Your task to perform on an android device: See recent photos Image 0: 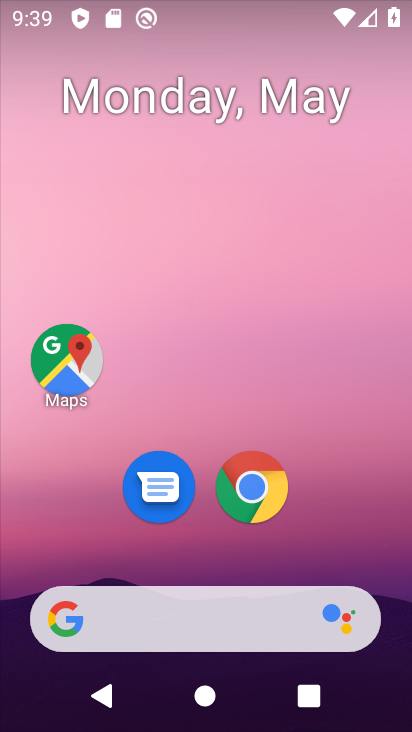
Step 0: drag from (308, 541) to (308, 0)
Your task to perform on an android device: See recent photos Image 1: 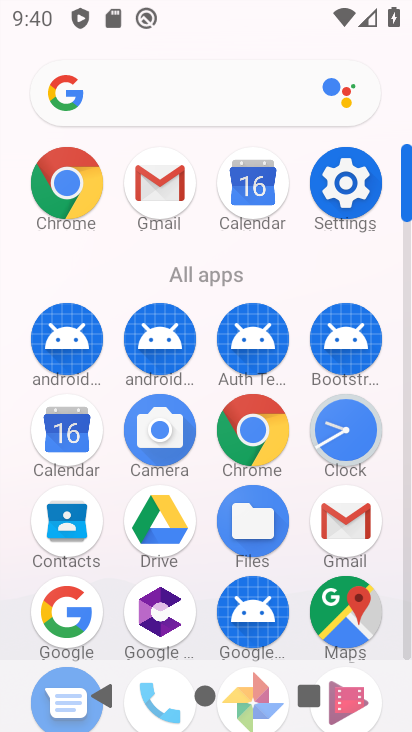
Step 1: drag from (294, 617) to (289, 295)
Your task to perform on an android device: See recent photos Image 2: 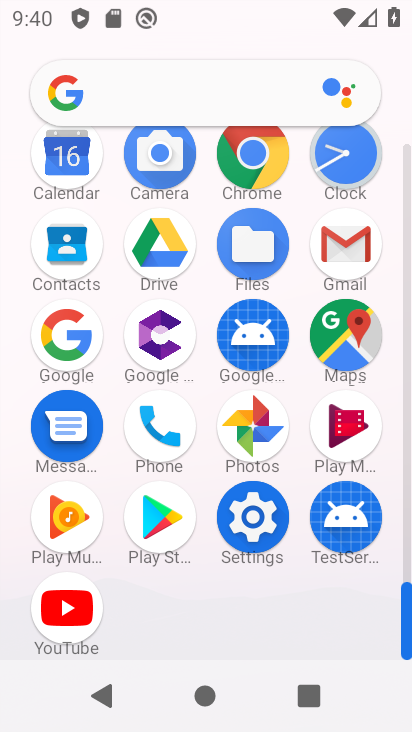
Step 2: click (235, 429)
Your task to perform on an android device: See recent photos Image 3: 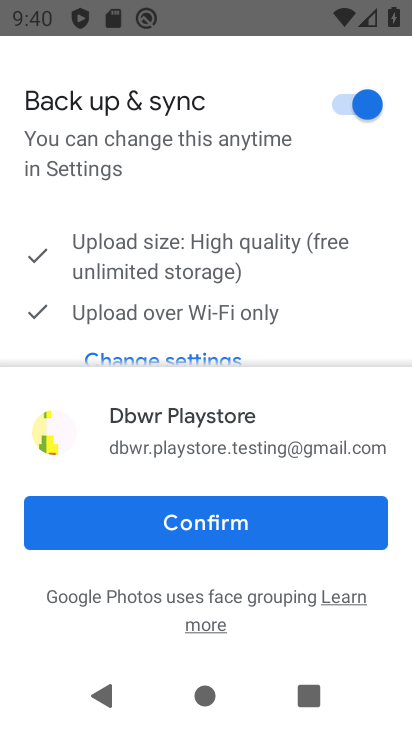
Step 3: click (218, 522)
Your task to perform on an android device: See recent photos Image 4: 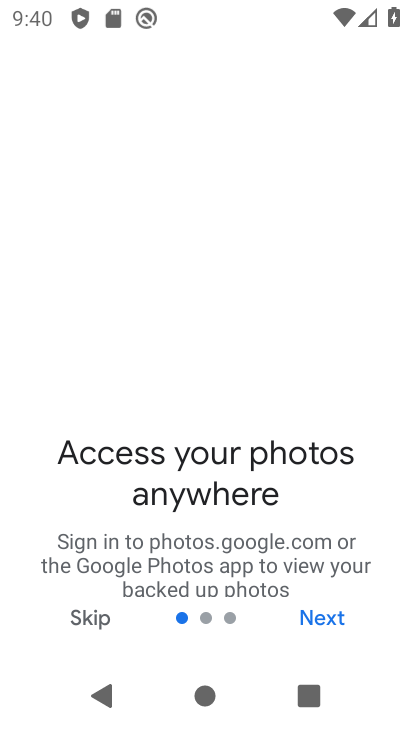
Step 4: click (326, 615)
Your task to perform on an android device: See recent photos Image 5: 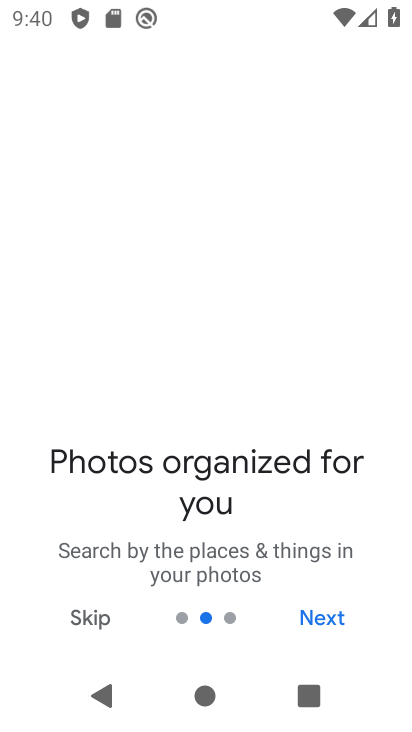
Step 5: click (318, 607)
Your task to perform on an android device: See recent photos Image 6: 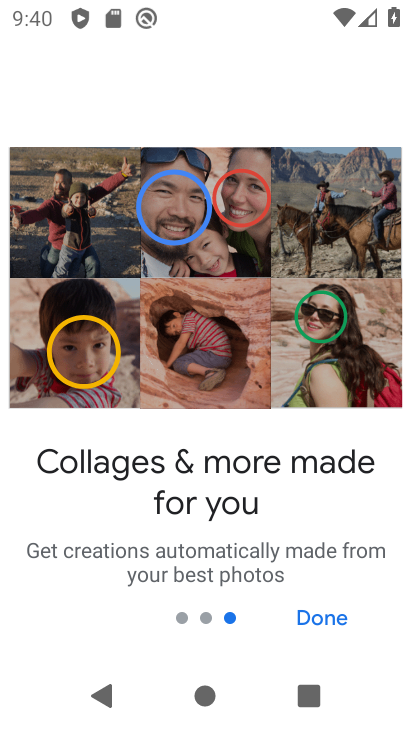
Step 6: click (330, 616)
Your task to perform on an android device: See recent photos Image 7: 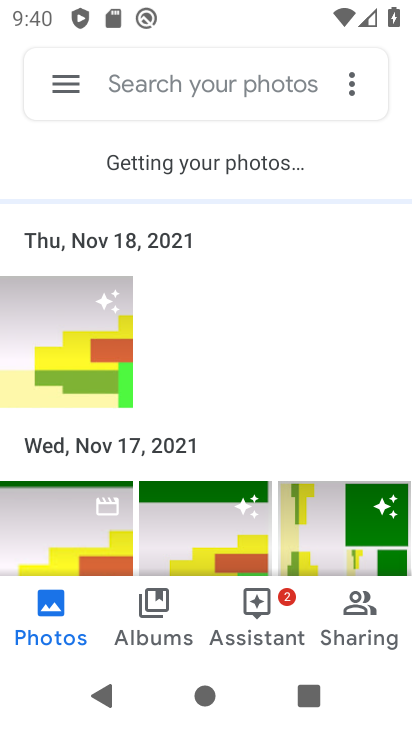
Step 7: task complete